Your task to perform on an android device: snooze an email in the gmail app Image 0: 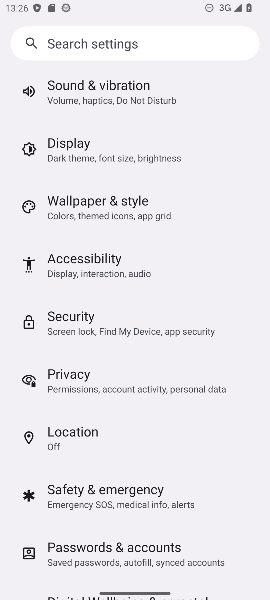
Step 0: press back button
Your task to perform on an android device: snooze an email in the gmail app Image 1: 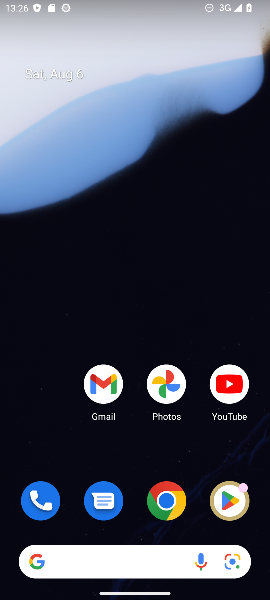
Step 1: click (100, 391)
Your task to perform on an android device: snooze an email in the gmail app Image 2: 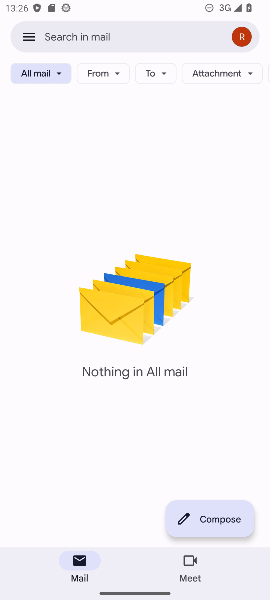
Step 2: click (34, 40)
Your task to perform on an android device: snooze an email in the gmail app Image 3: 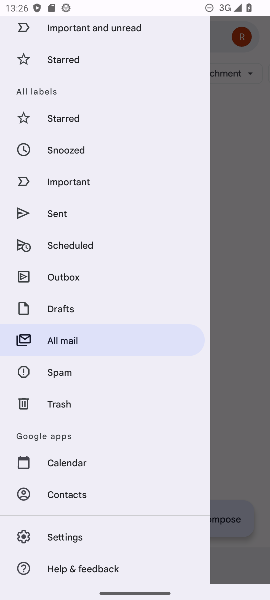
Step 3: task complete